Your task to perform on an android device: delete the emails in spam in the gmail app Image 0: 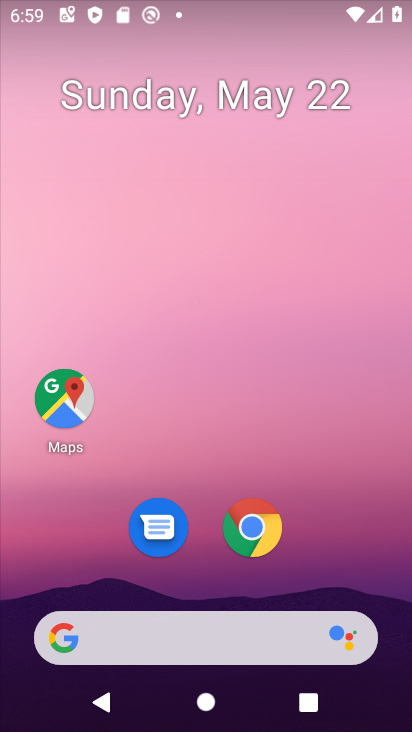
Step 0: drag from (316, 454) to (251, 101)
Your task to perform on an android device: delete the emails in spam in the gmail app Image 1: 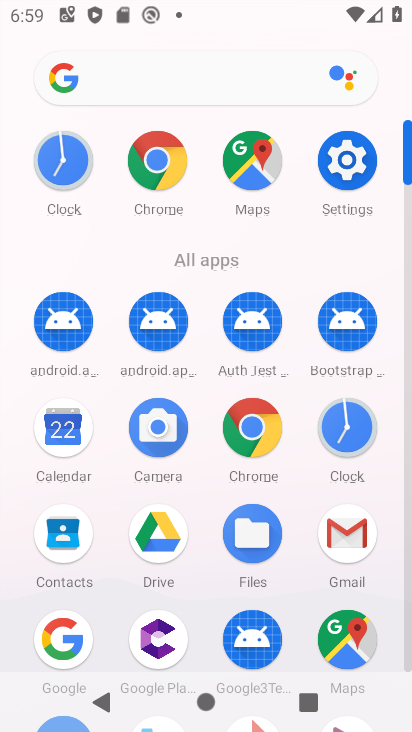
Step 1: click (347, 527)
Your task to perform on an android device: delete the emails in spam in the gmail app Image 2: 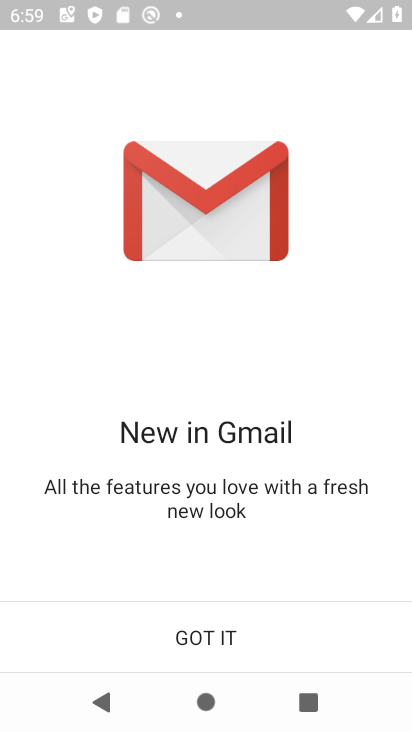
Step 2: click (181, 623)
Your task to perform on an android device: delete the emails in spam in the gmail app Image 3: 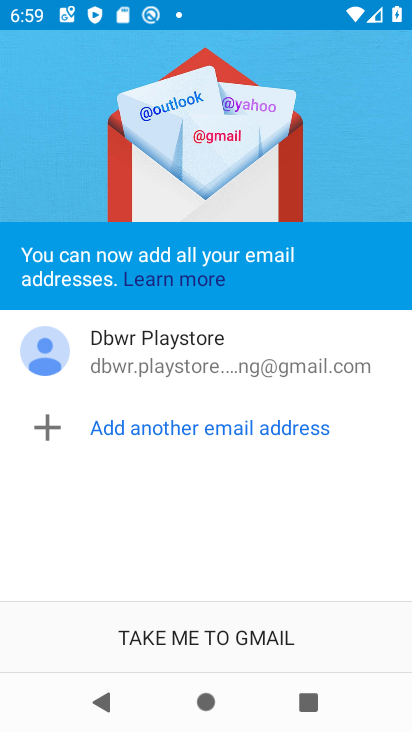
Step 3: click (183, 618)
Your task to perform on an android device: delete the emails in spam in the gmail app Image 4: 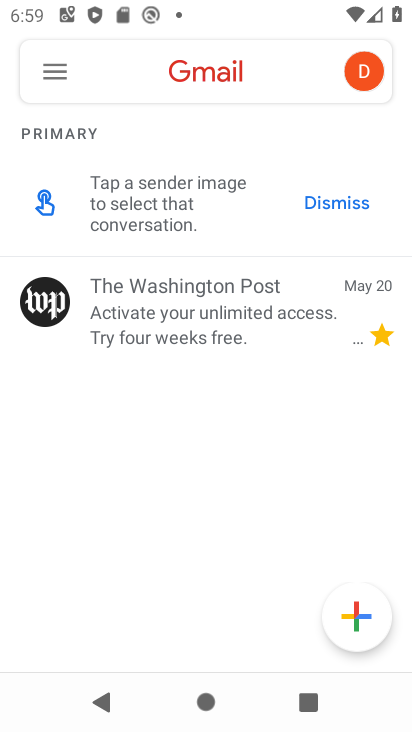
Step 4: click (65, 66)
Your task to perform on an android device: delete the emails in spam in the gmail app Image 5: 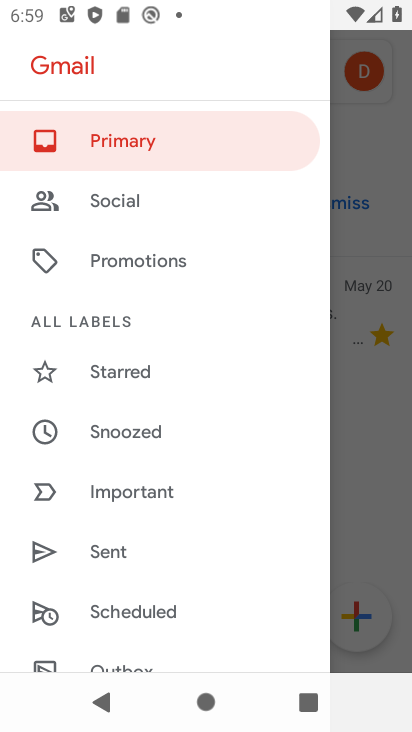
Step 5: drag from (116, 588) to (74, 228)
Your task to perform on an android device: delete the emails in spam in the gmail app Image 6: 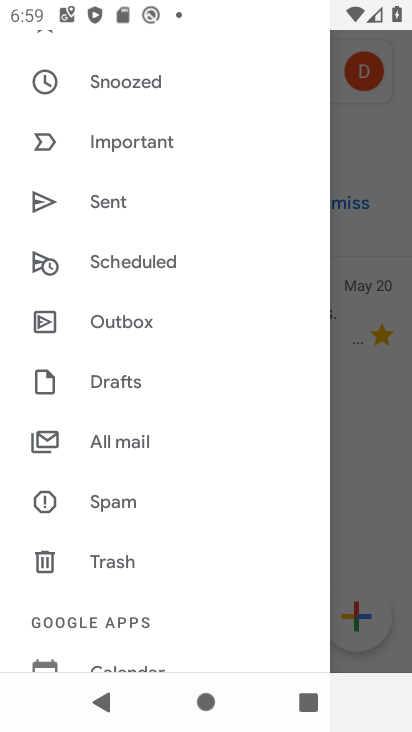
Step 6: click (108, 519)
Your task to perform on an android device: delete the emails in spam in the gmail app Image 7: 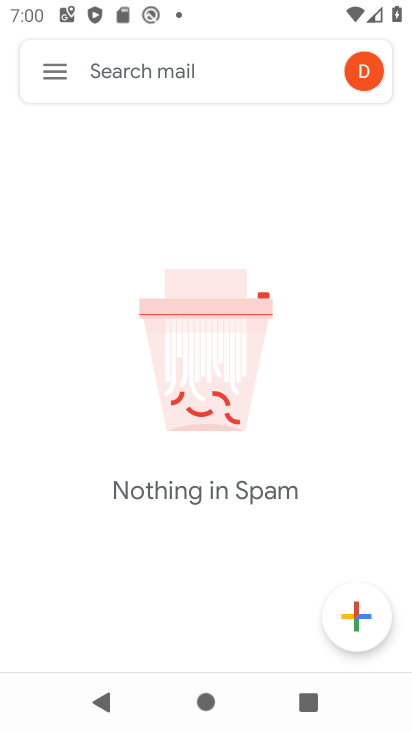
Step 7: task complete